Your task to perform on an android device: Go to Wikipedia Image 0: 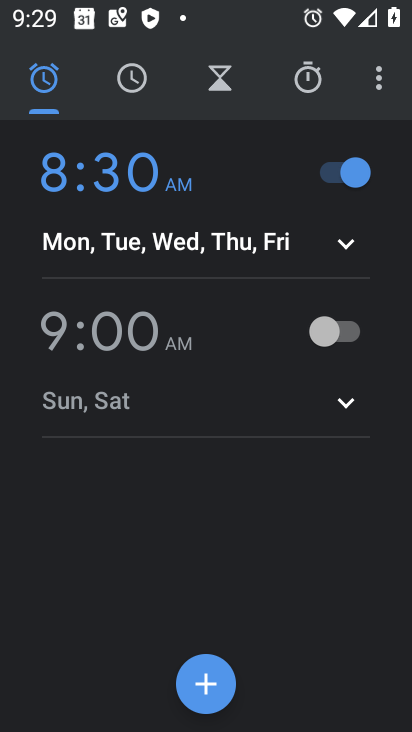
Step 0: press back button
Your task to perform on an android device: Go to Wikipedia Image 1: 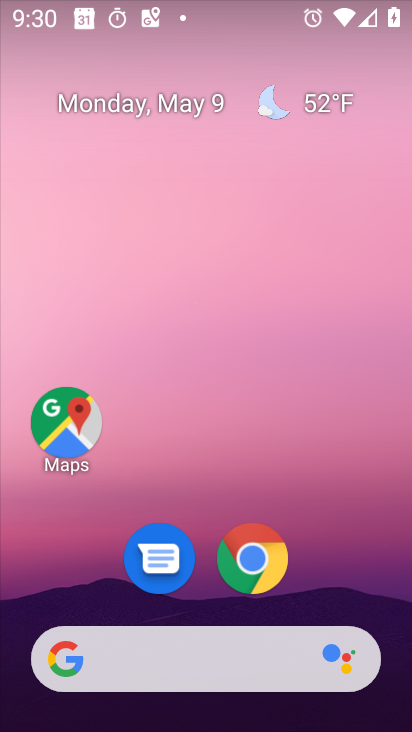
Step 1: click (250, 531)
Your task to perform on an android device: Go to Wikipedia Image 2: 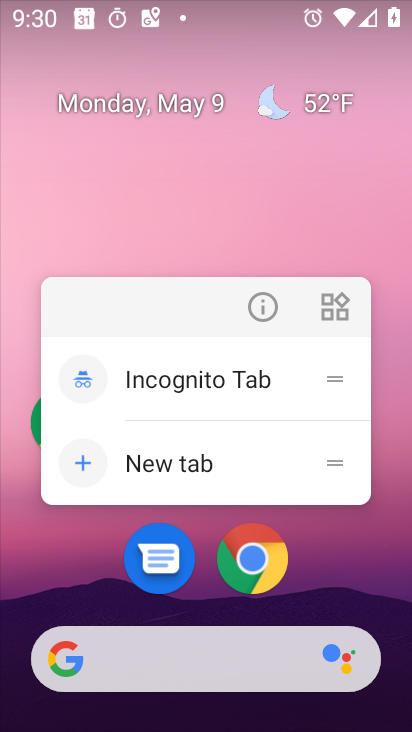
Step 2: click (251, 569)
Your task to perform on an android device: Go to Wikipedia Image 3: 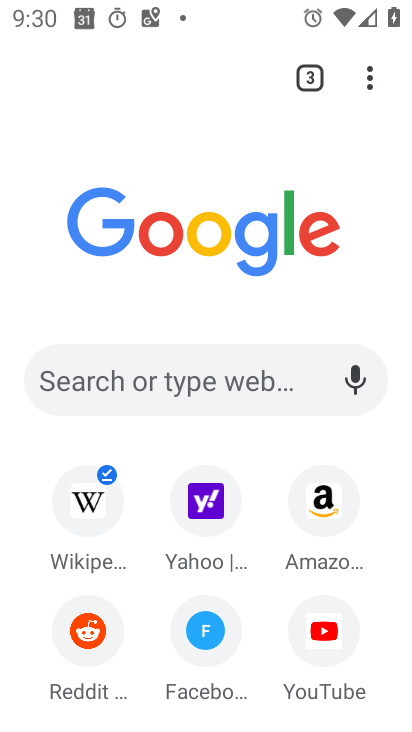
Step 3: click (64, 529)
Your task to perform on an android device: Go to Wikipedia Image 4: 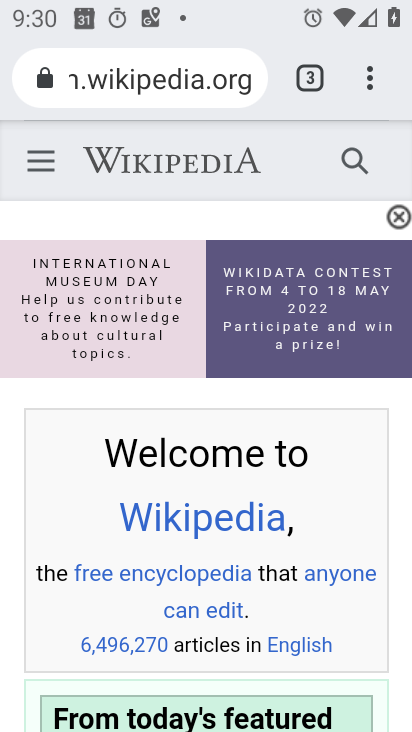
Step 4: task complete